Your task to perform on an android device: check android version Image 0: 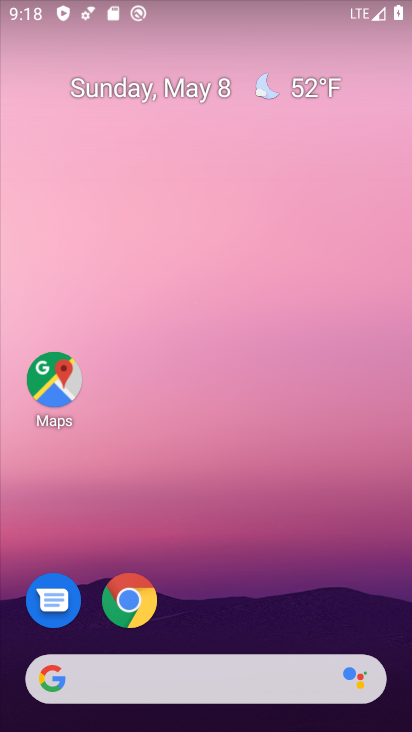
Step 0: drag from (318, 627) to (253, 33)
Your task to perform on an android device: check android version Image 1: 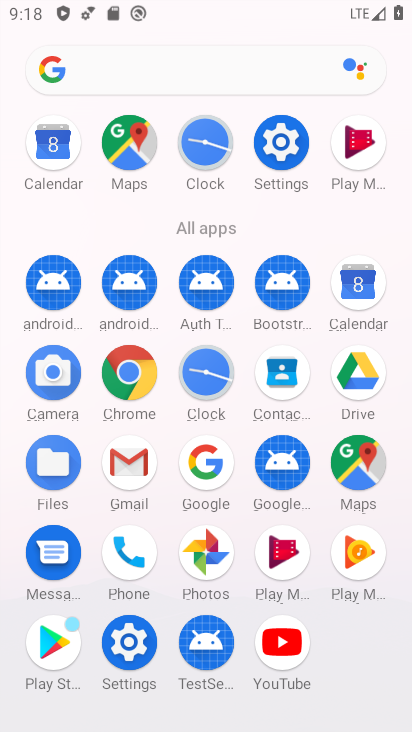
Step 1: click (280, 141)
Your task to perform on an android device: check android version Image 2: 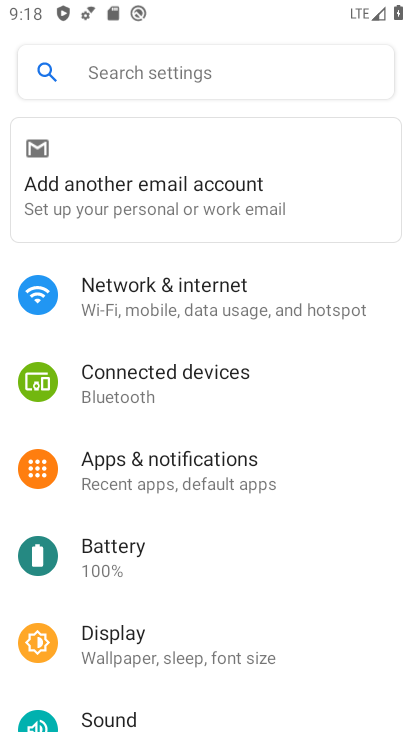
Step 2: drag from (357, 684) to (353, 18)
Your task to perform on an android device: check android version Image 3: 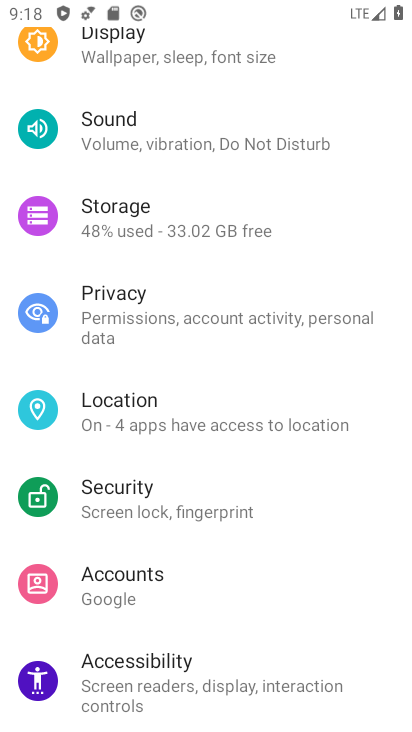
Step 3: drag from (305, 650) to (266, 0)
Your task to perform on an android device: check android version Image 4: 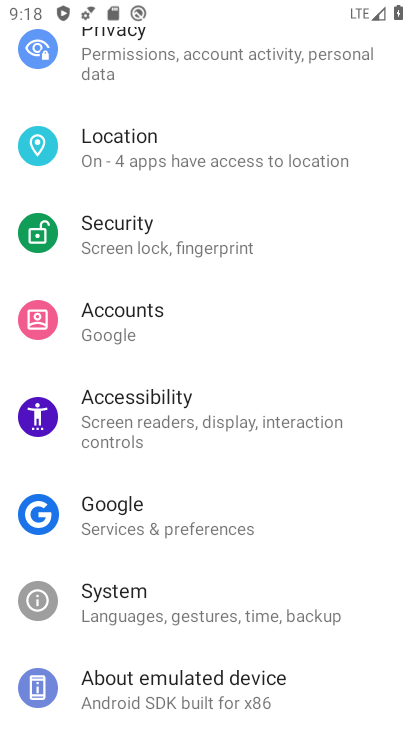
Step 4: click (169, 690)
Your task to perform on an android device: check android version Image 5: 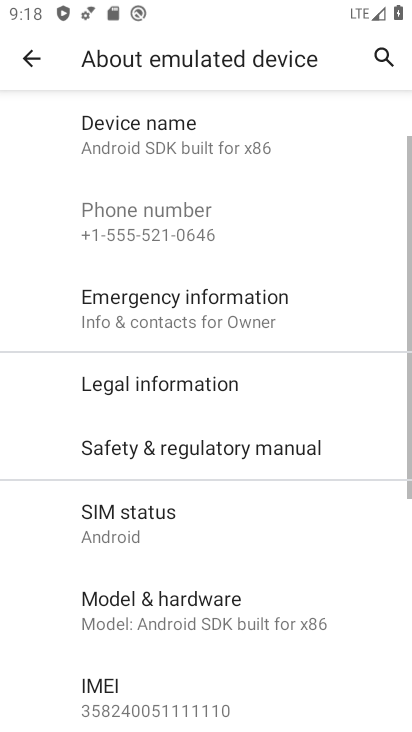
Step 5: drag from (298, 655) to (299, 90)
Your task to perform on an android device: check android version Image 6: 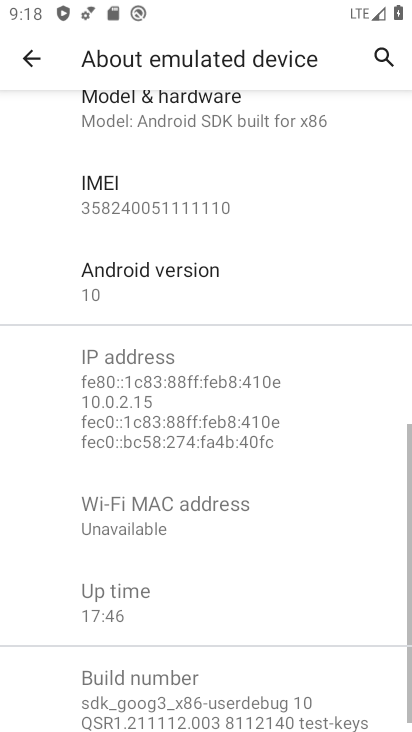
Step 6: click (156, 280)
Your task to perform on an android device: check android version Image 7: 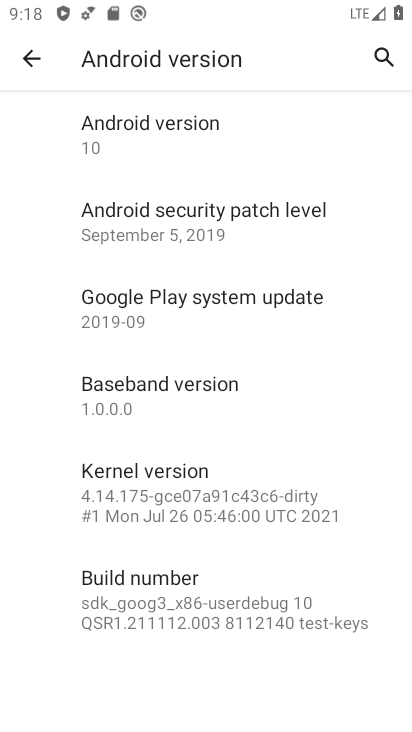
Step 7: task complete